Your task to perform on an android device: toggle javascript in the chrome app Image 0: 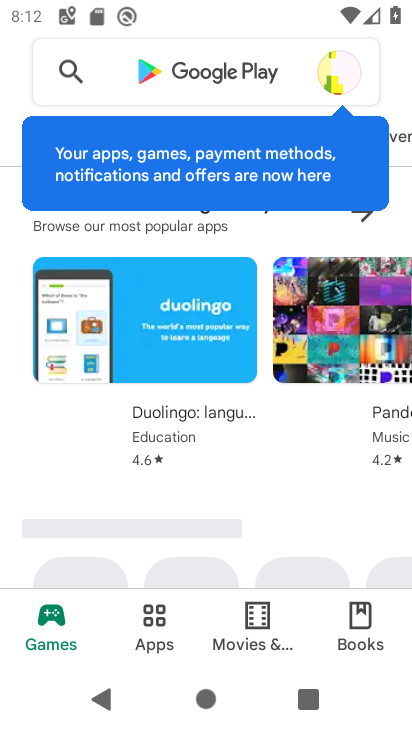
Step 0: press home button
Your task to perform on an android device: toggle javascript in the chrome app Image 1: 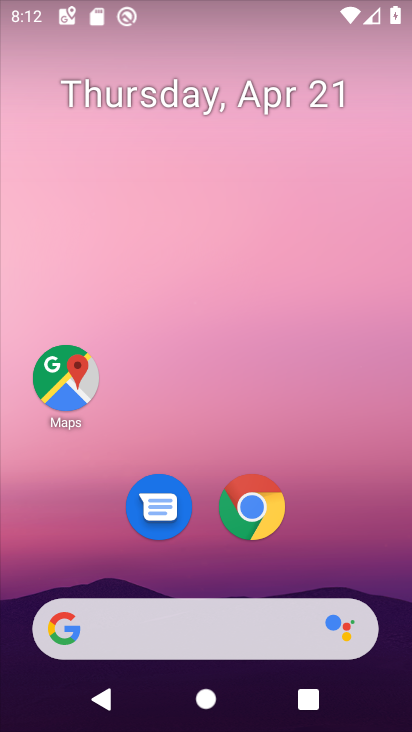
Step 1: click (293, 514)
Your task to perform on an android device: toggle javascript in the chrome app Image 2: 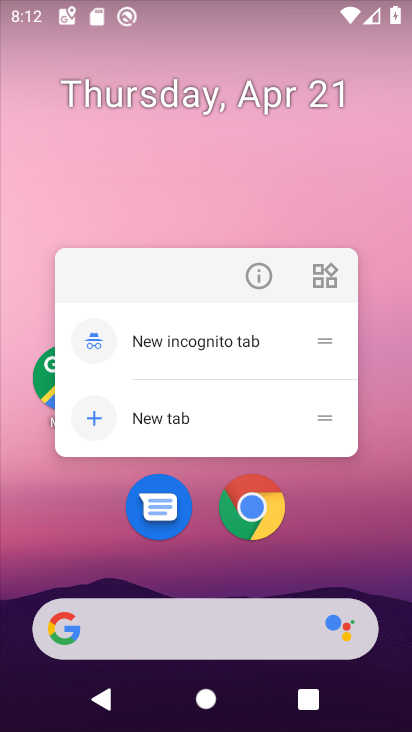
Step 2: click (258, 526)
Your task to perform on an android device: toggle javascript in the chrome app Image 3: 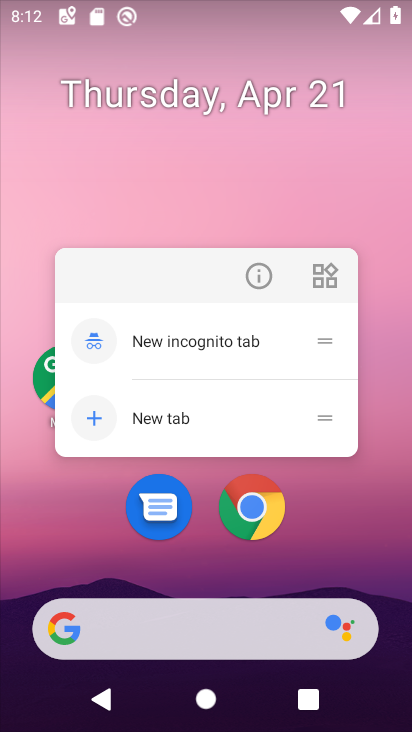
Step 3: drag from (372, 357) to (374, 163)
Your task to perform on an android device: toggle javascript in the chrome app Image 4: 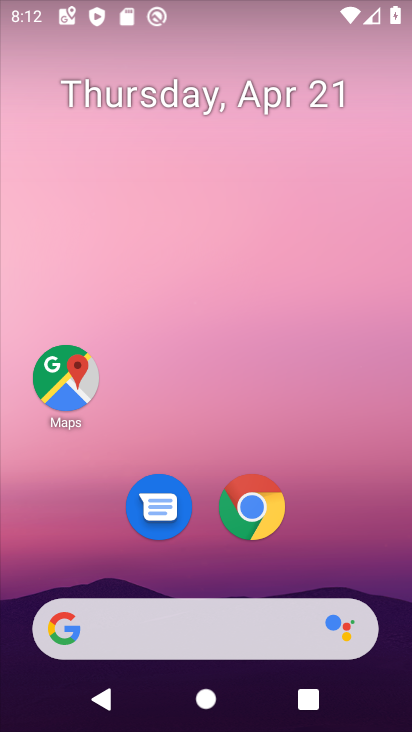
Step 4: drag from (375, 549) to (374, 55)
Your task to perform on an android device: toggle javascript in the chrome app Image 5: 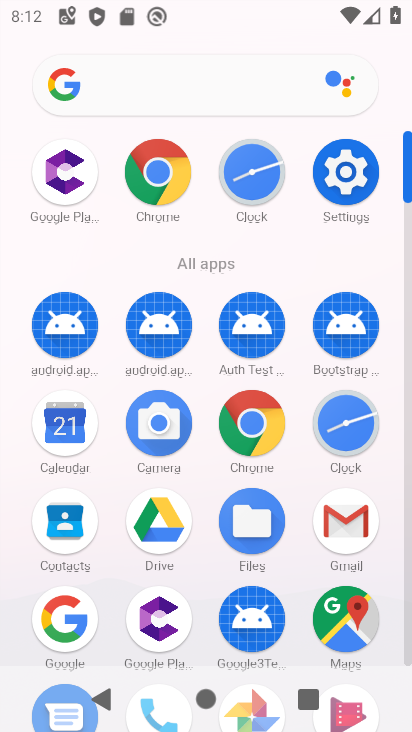
Step 5: click (251, 418)
Your task to perform on an android device: toggle javascript in the chrome app Image 6: 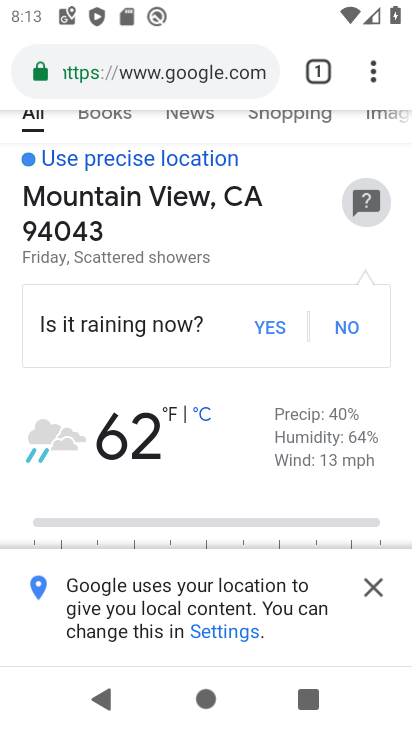
Step 6: click (380, 85)
Your task to perform on an android device: toggle javascript in the chrome app Image 7: 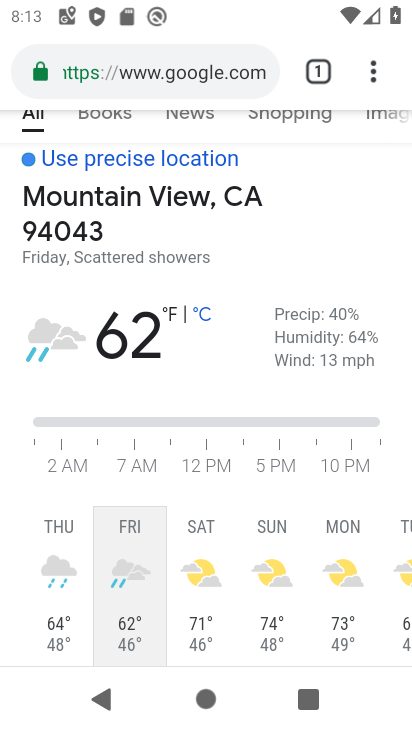
Step 7: drag from (380, 85) to (213, 502)
Your task to perform on an android device: toggle javascript in the chrome app Image 8: 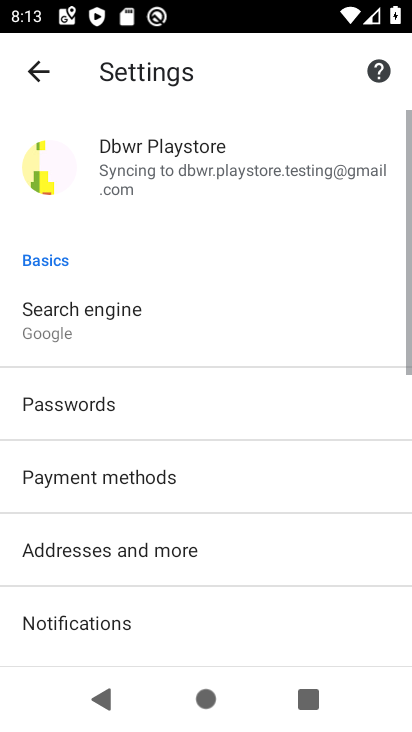
Step 8: drag from (275, 634) to (335, 280)
Your task to perform on an android device: toggle javascript in the chrome app Image 9: 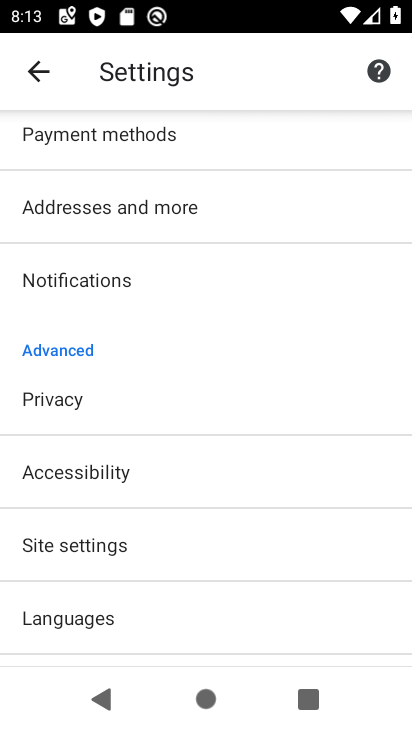
Step 9: drag from (309, 561) to (320, 295)
Your task to perform on an android device: toggle javascript in the chrome app Image 10: 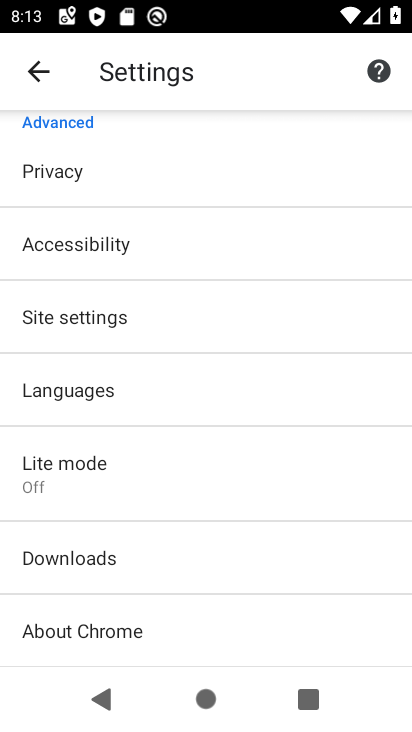
Step 10: click (209, 326)
Your task to perform on an android device: toggle javascript in the chrome app Image 11: 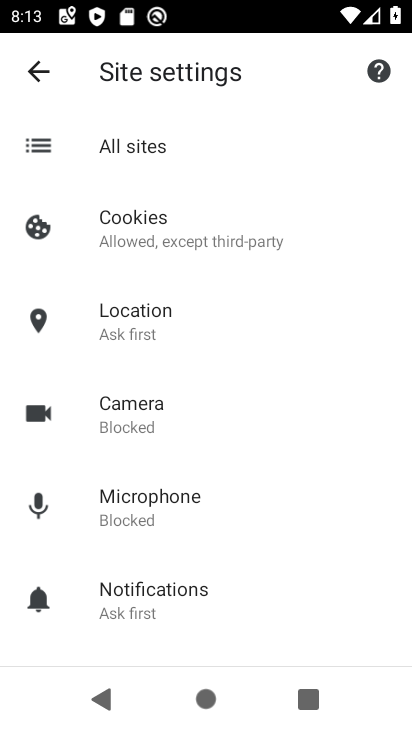
Step 11: drag from (271, 493) to (331, 272)
Your task to perform on an android device: toggle javascript in the chrome app Image 12: 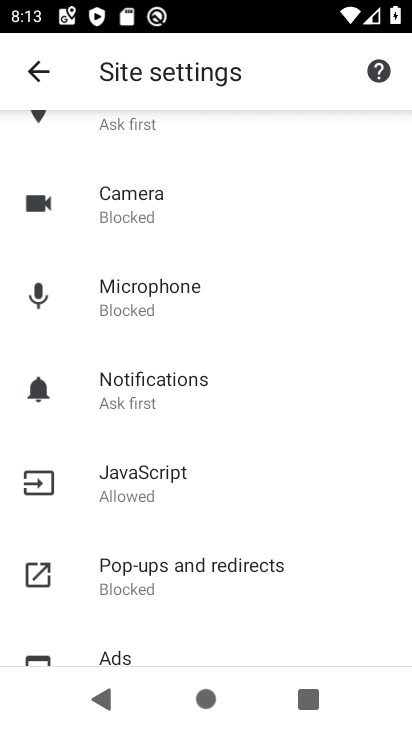
Step 12: drag from (293, 535) to (334, 320)
Your task to perform on an android device: toggle javascript in the chrome app Image 13: 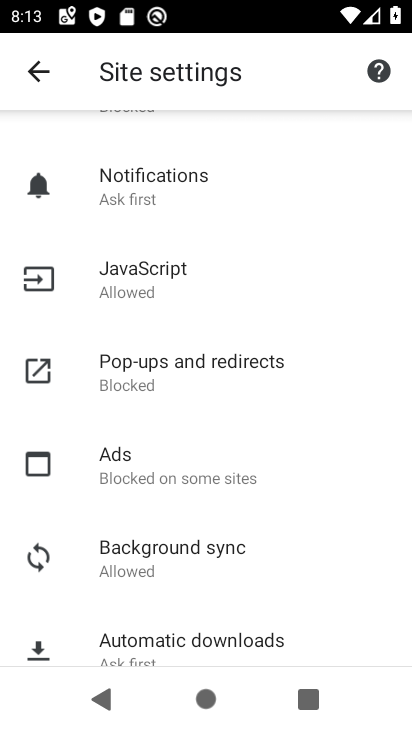
Step 13: click (165, 279)
Your task to perform on an android device: toggle javascript in the chrome app Image 14: 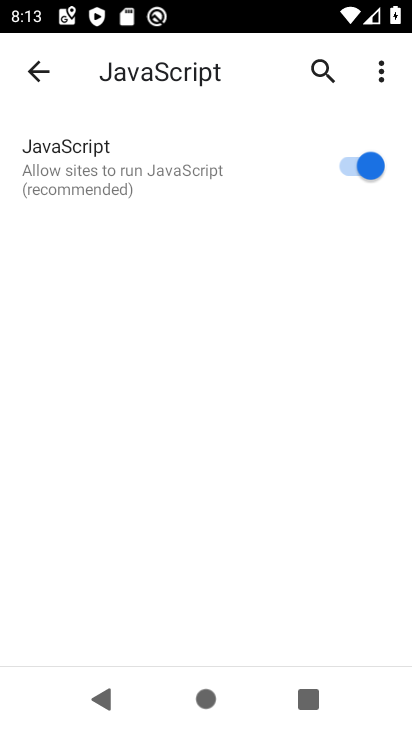
Step 14: click (354, 168)
Your task to perform on an android device: toggle javascript in the chrome app Image 15: 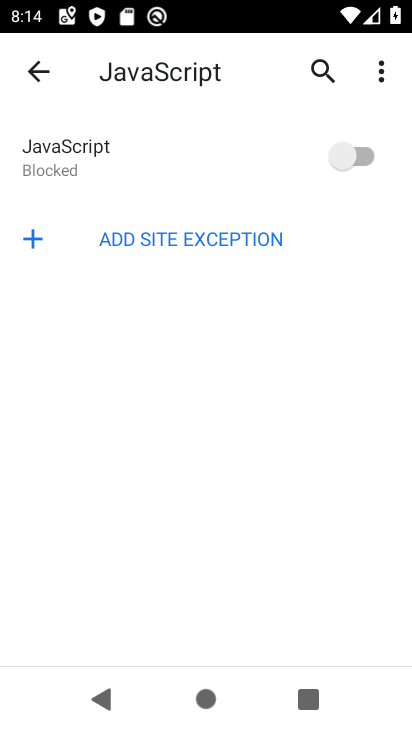
Step 15: task complete